Your task to perform on an android device: turn off data saver in the chrome app Image 0: 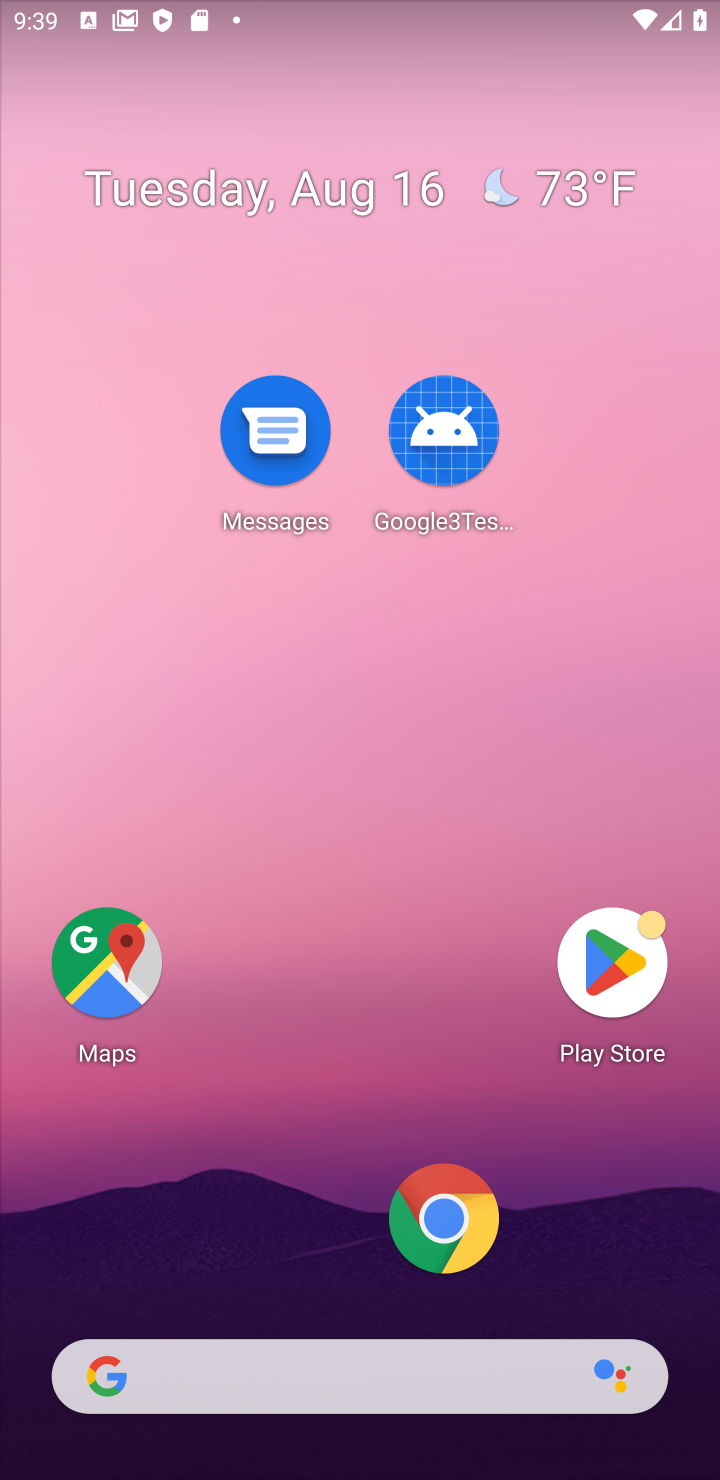
Step 0: click (435, 1249)
Your task to perform on an android device: turn off data saver in the chrome app Image 1: 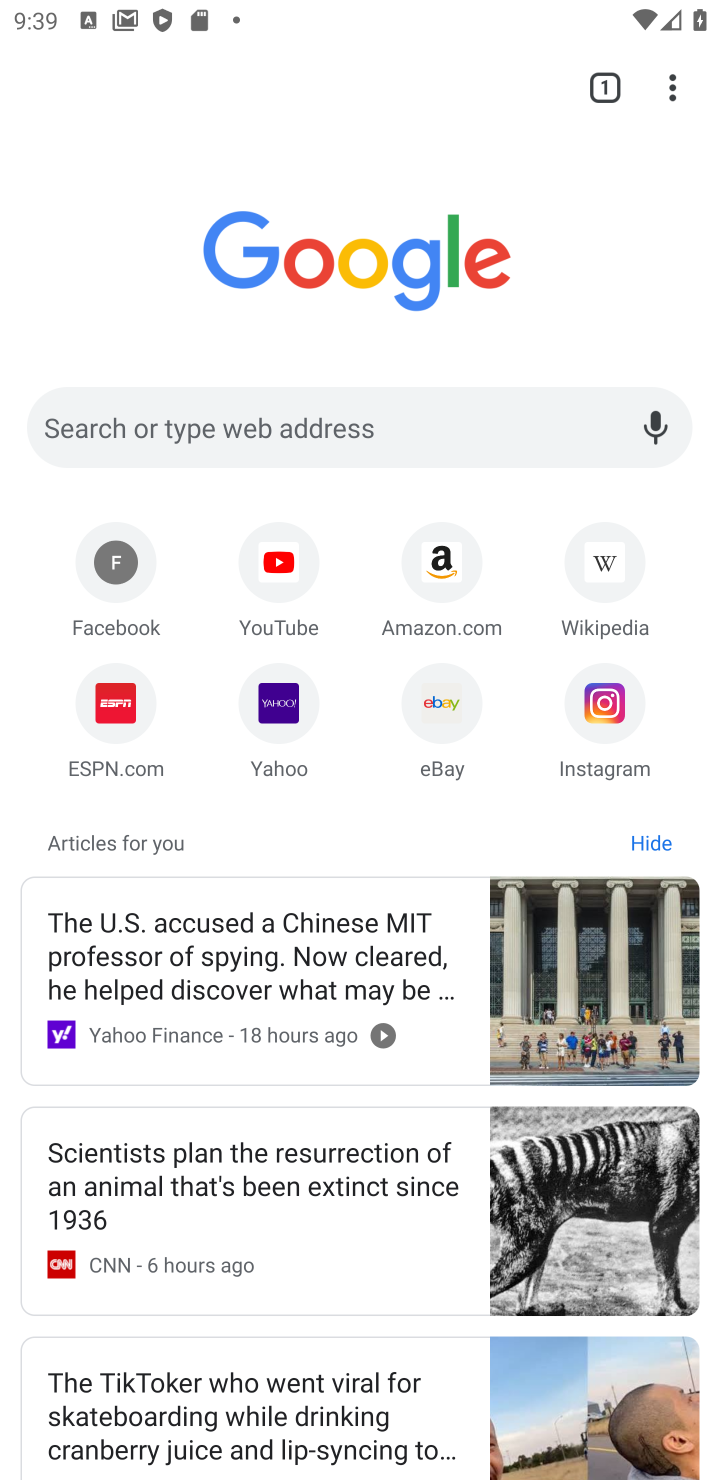
Step 1: click (684, 87)
Your task to perform on an android device: turn off data saver in the chrome app Image 2: 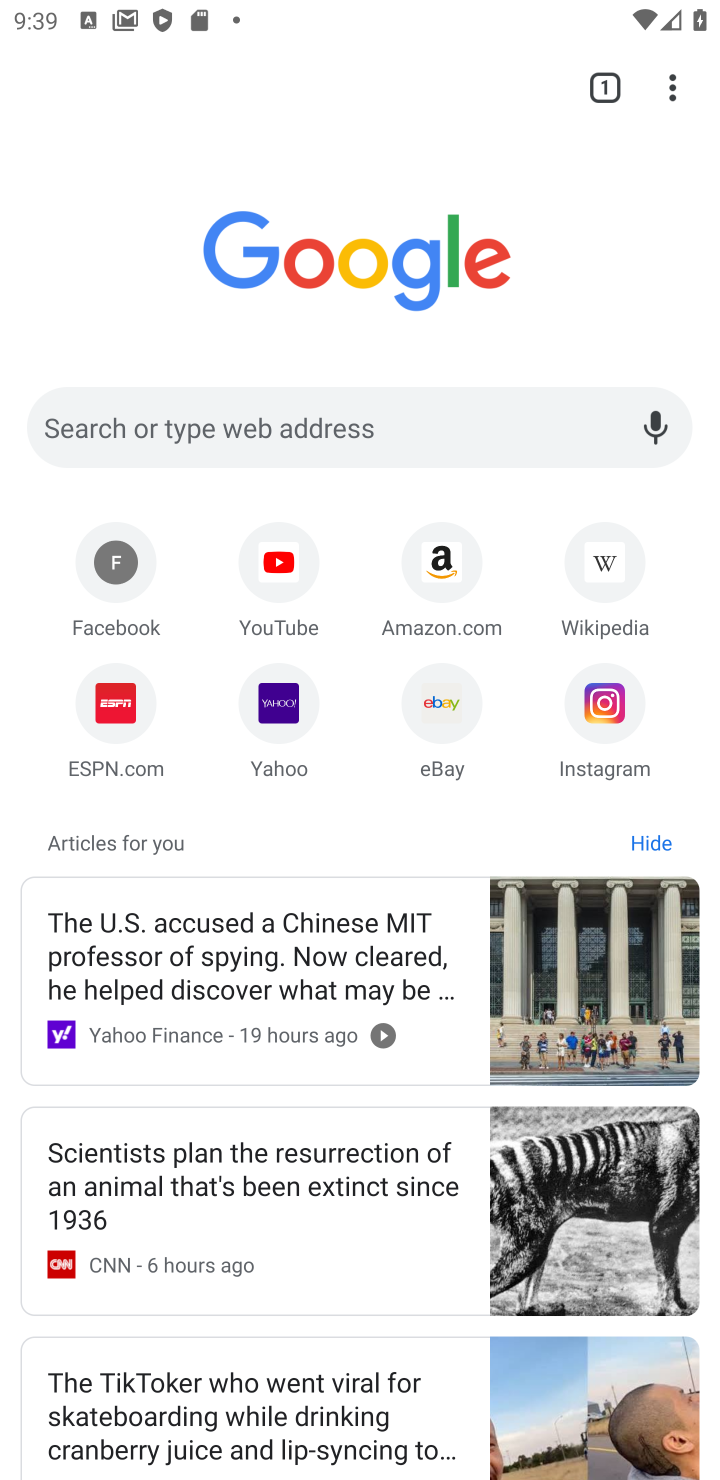
Step 2: click (680, 81)
Your task to perform on an android device: turn off data saver in the chrome app Image 3: 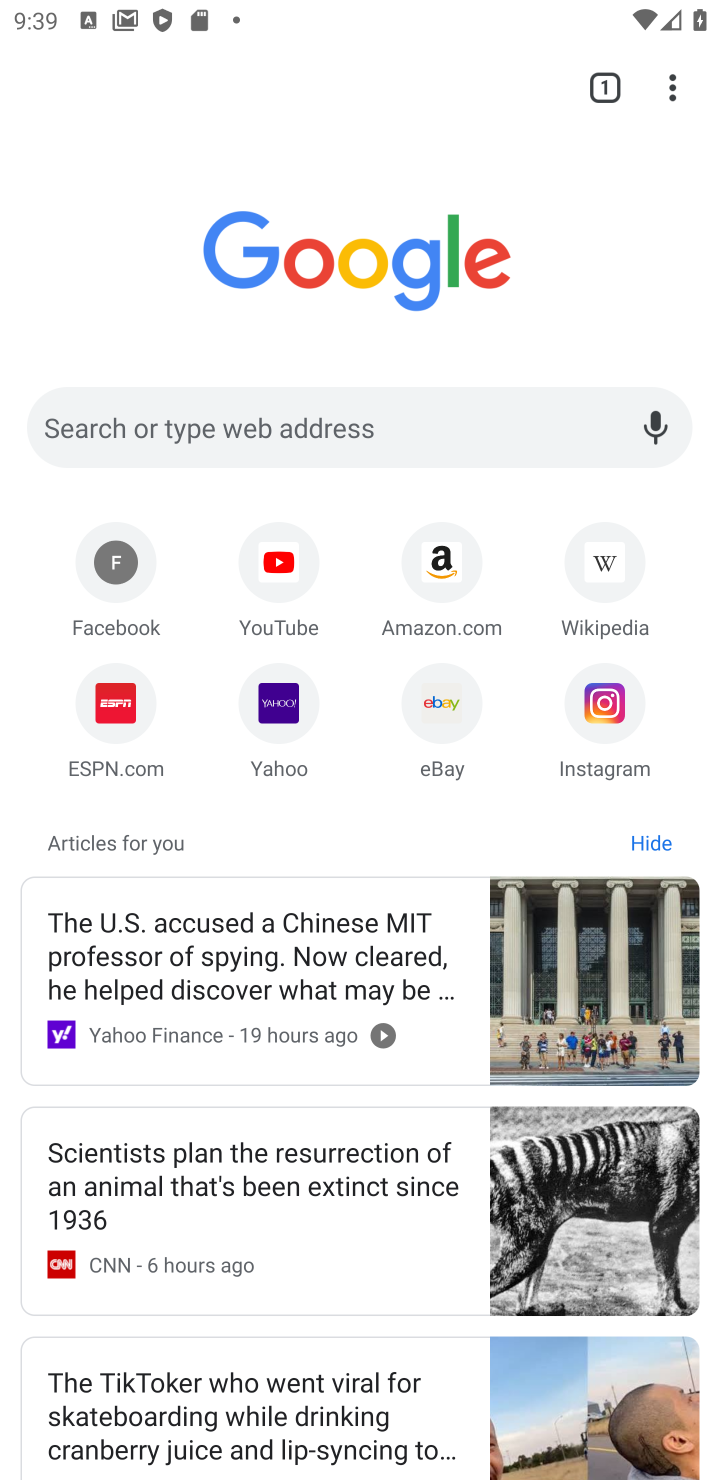
Step 3: click (683, 93)
Your task to perform on an android device: turn off data saver in the chrome app Image 4: 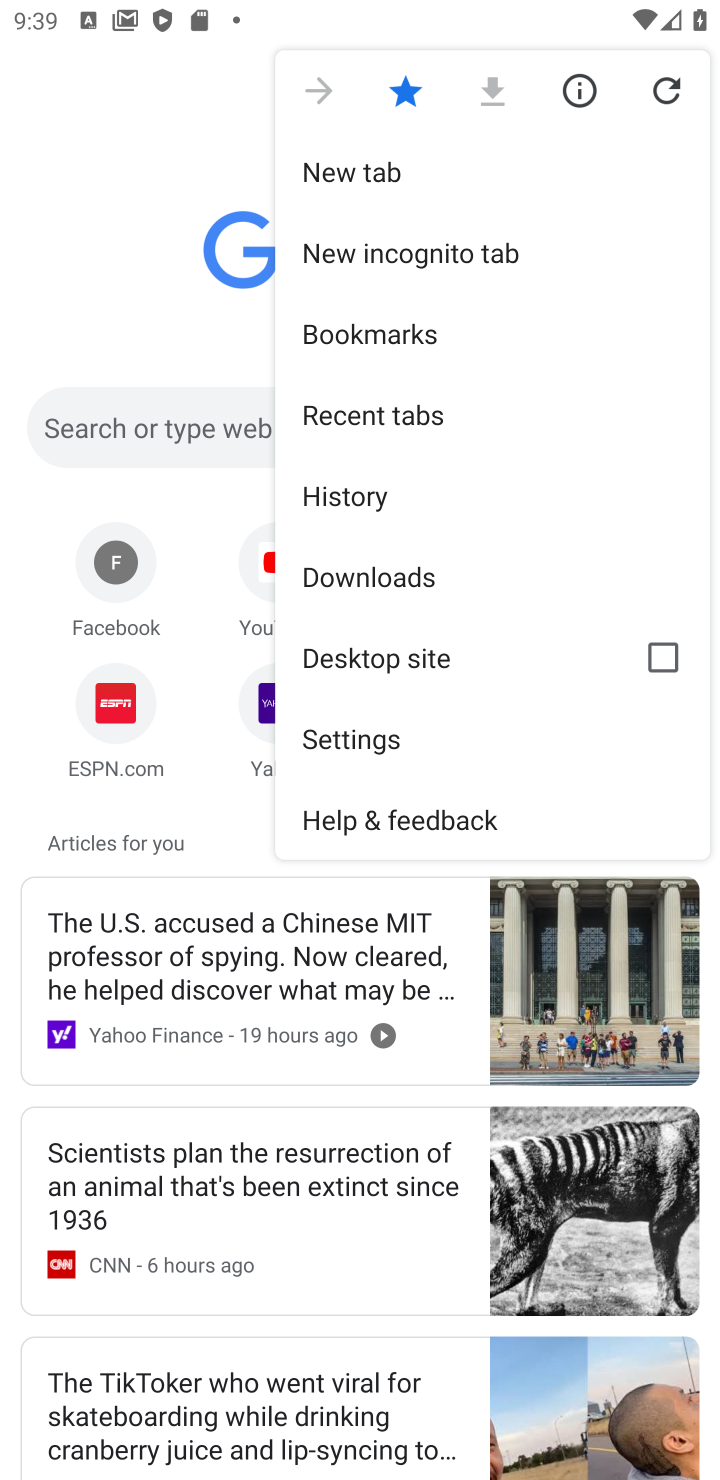
Step 4: click (349, 752)
Your task to perform on an android device: turn off data saver in the chrome app Image 5: 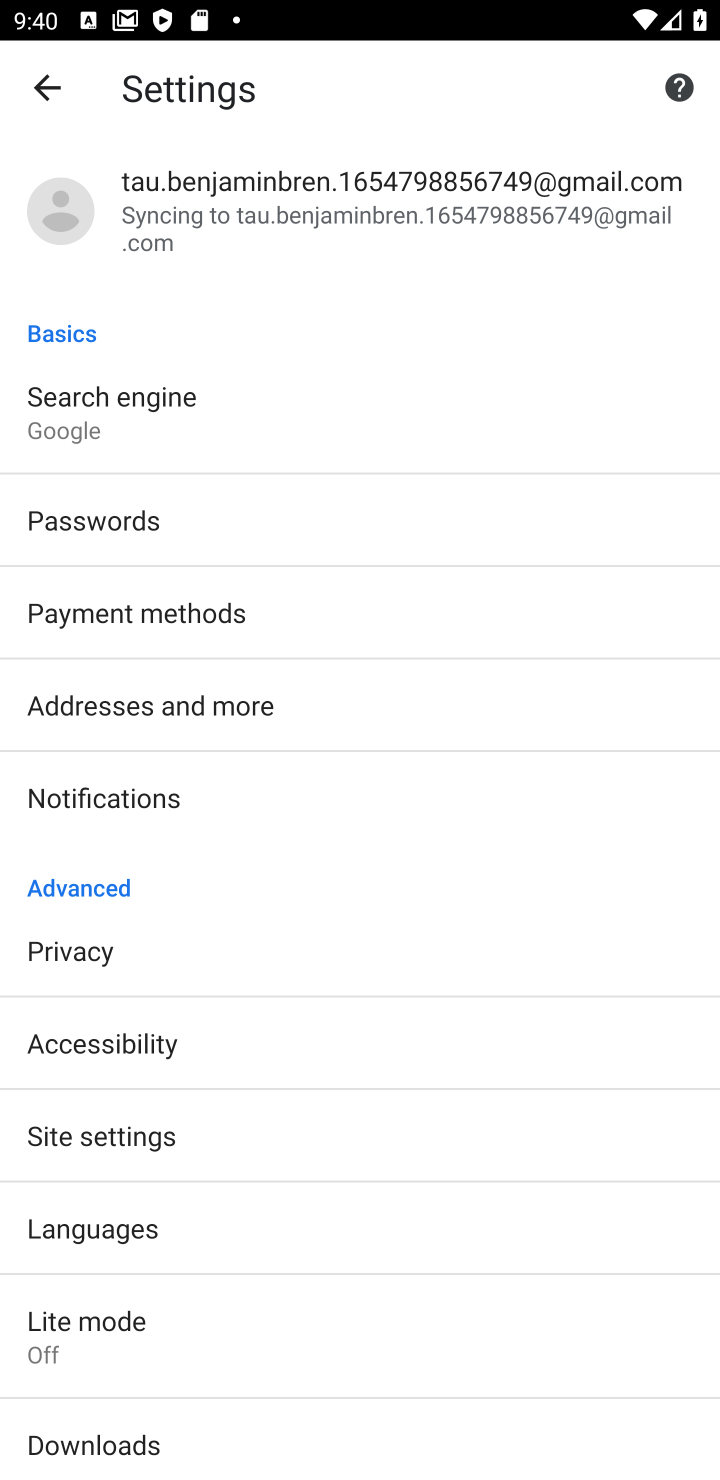
Step 5: click (222, 1329)
Your task to perform on an android device: turn off data saver in the chrome app Image 6: 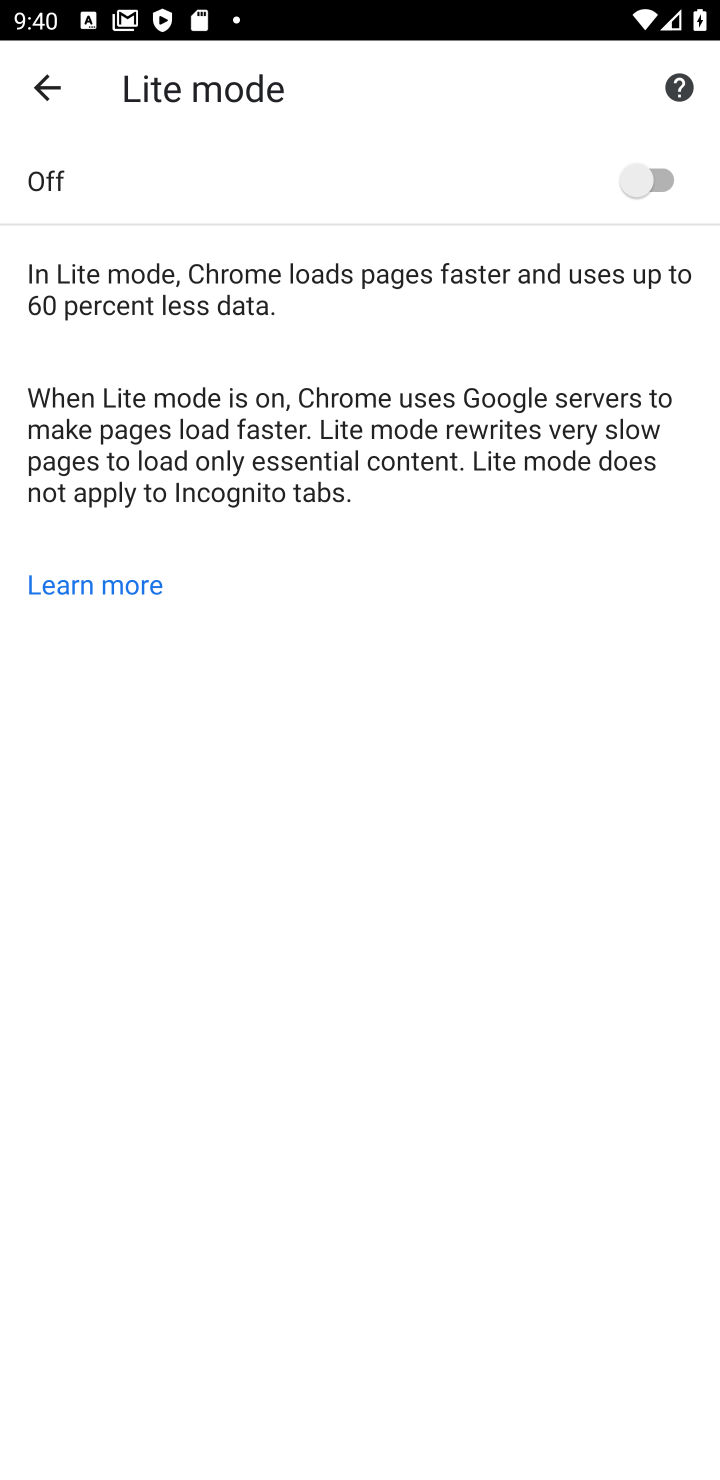
Step 6: task complete